Your task to perform on an android device: Set the phone to "Do not disturb". Image 0: 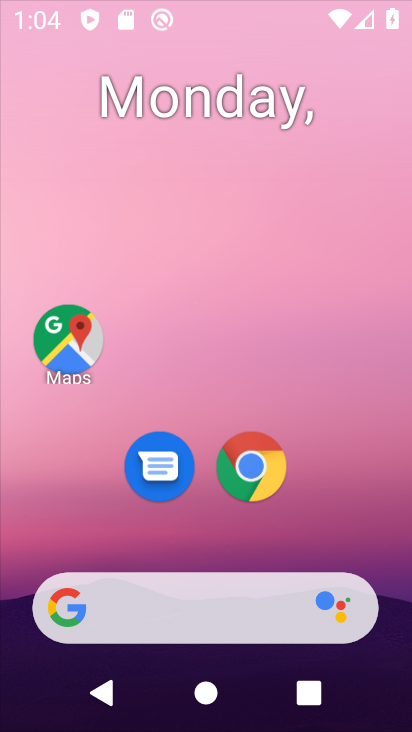
Step 0: click (274, 458)
Your task to perform on an android device: Set the phone to "Do not disturb". Image 1: 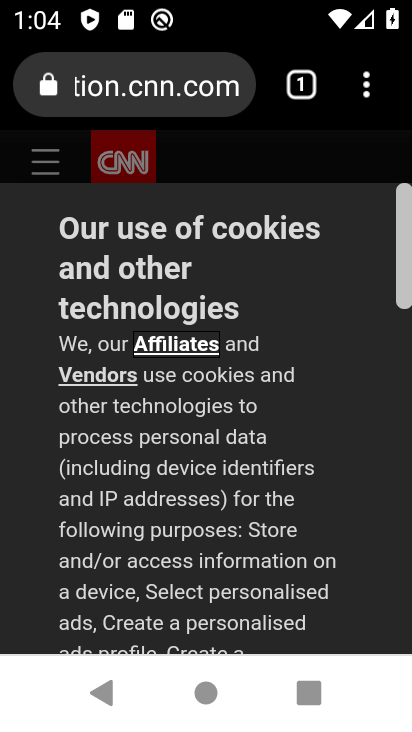
Step 1: click (370, 78)
Your task to perform on an android device: Set the phone to "Do not disturb". Image 2: 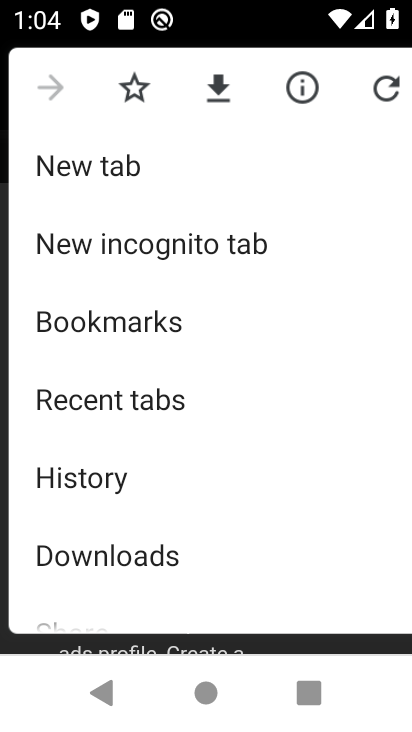
Step 2: drag from (135, 519) to (174, 265)
Your task to perform on an android device: Set the phone to "Do not disturb". Image 3: 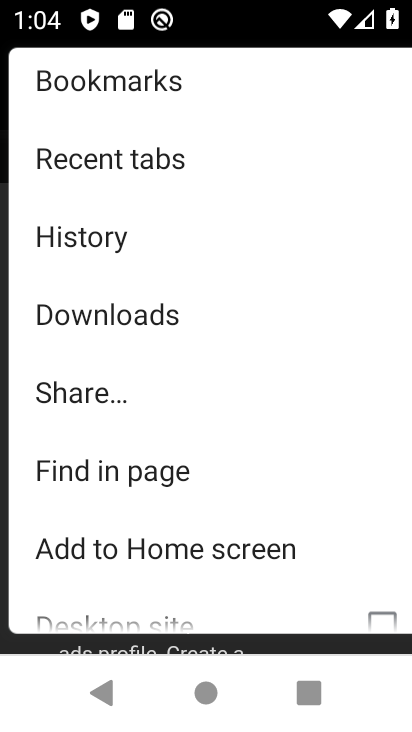
Step 3: press home button
Your task to perform on an android device: Set the phone to "Do not disturb". Image 4: 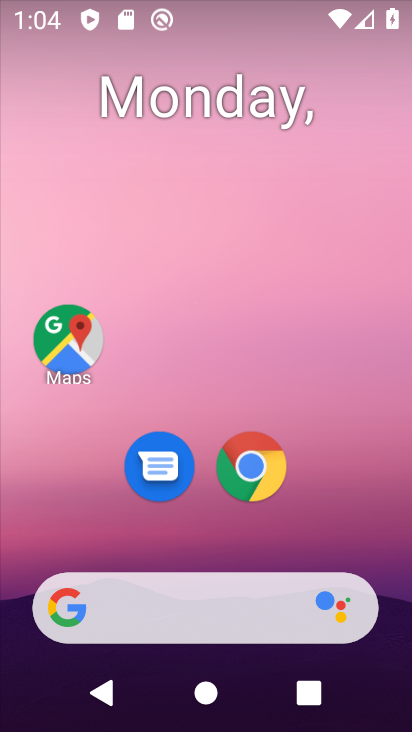
Step 4: drag from (202, 512) to (272, 45)
Your task to perform on an android device: Set the phone to "Do not disturb". Image 5: 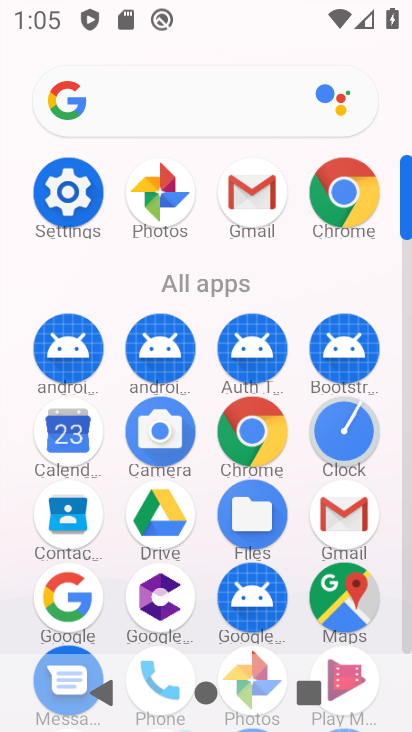
Step 5: click (79, 198)
Your task to perform on an android device: Set the phone to "Do not disturb". Image 6: 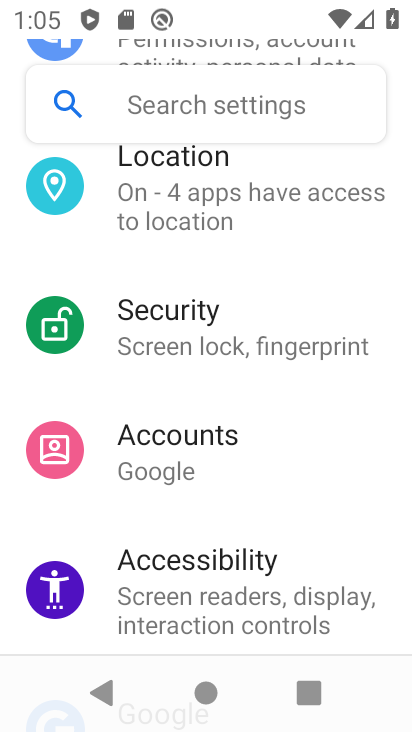
Step 6: drag from (227, 535) to (179, 717)
Your task to perform on an android device: Set the phone to "Do not disturb". Image 7: 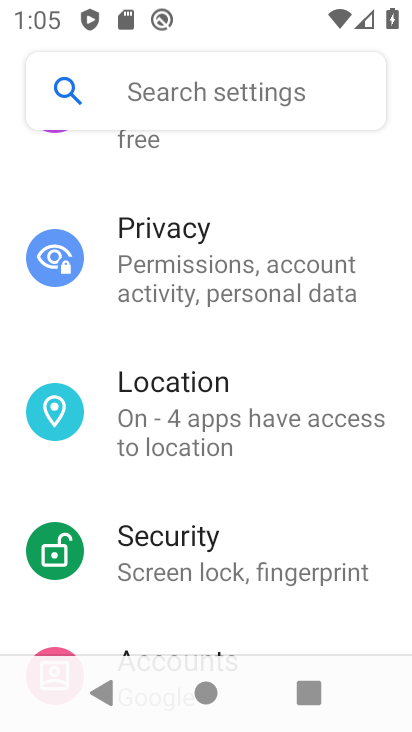
Step 7: drag from (228, 301) to (230, 593)
Your task to perform on an android device: Set the phone to "Do not disturb". Image 8: 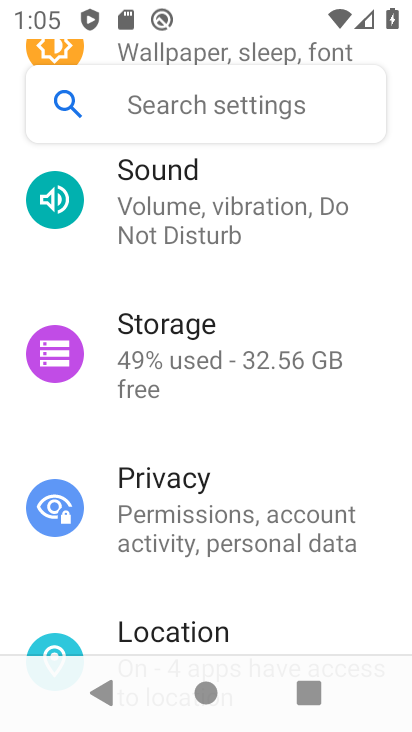
Step 8: click (227, 230)
Your task to perform on an android device: Set the phone to "Do not disturb". Image 9: 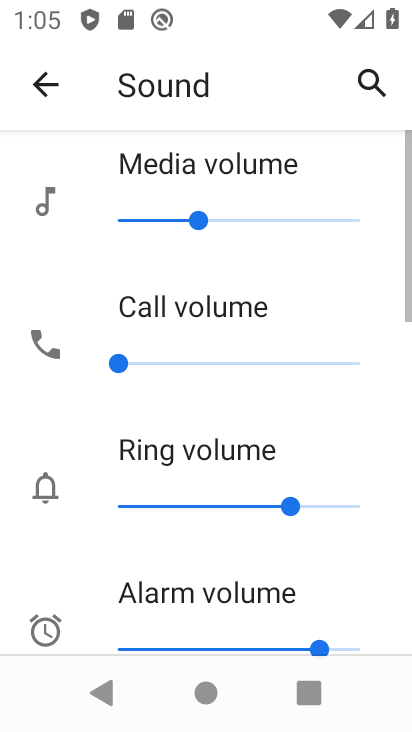
Step 9: drag from (221, 503) to (267, 121)
Your task to perform on an android device: Set the phone to "Do not disturb". Image 10: 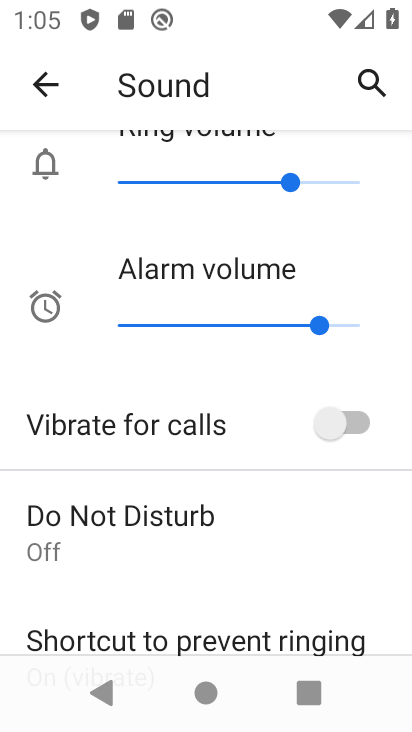
Step 10: click (191, 550)
Your task to perform on an android device: Set the phone to "Do not disturb". Image 11: 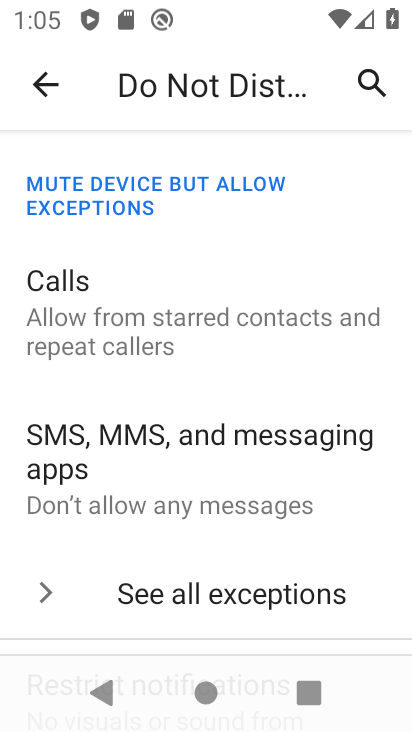
Step 11: drag from (185, 568) to (224, 156)
Your task to perform on an android device: Set the phone to "Do not disturb". Image 12: 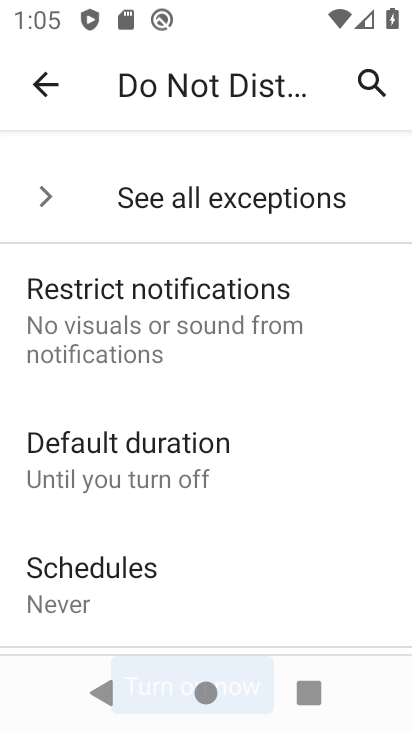
Step 12: drag from (211, 516) to (262, 3)
Your task to perform on an android device: Set the phone to "Do not disturb". Image 13: 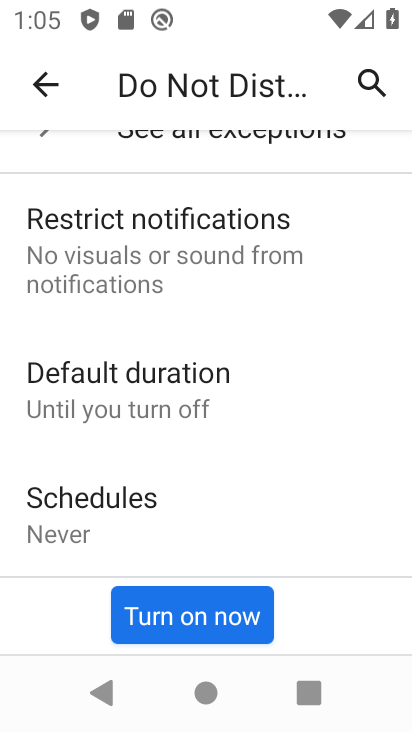
Step 13: click (195, 617)
Your task to perform on an android device: Set the phone to "Do not disturb". Image 14: 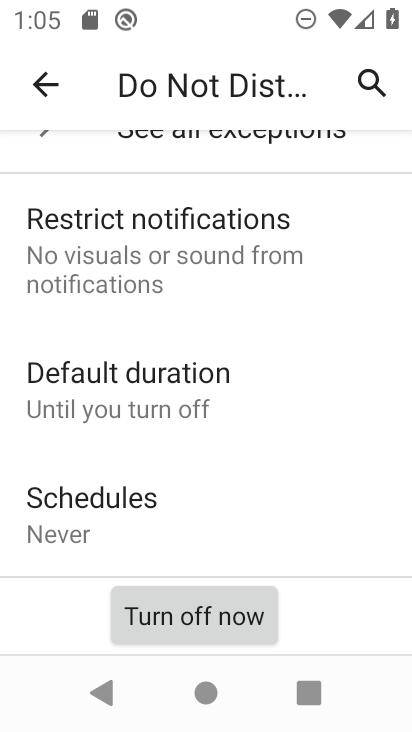
Step 14: task complete